Your task to perform on an android device: turn off javascript in the chrome app Image 0: 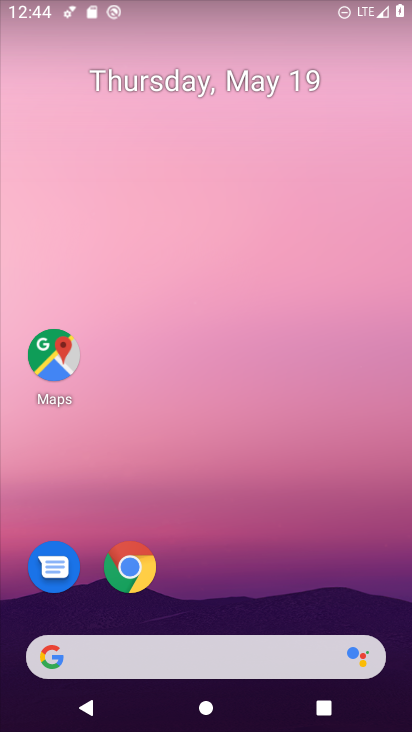
Step 0: click (143, 593)
Your task to perform on an android device: turn off javascript in the chrome app Image 1: 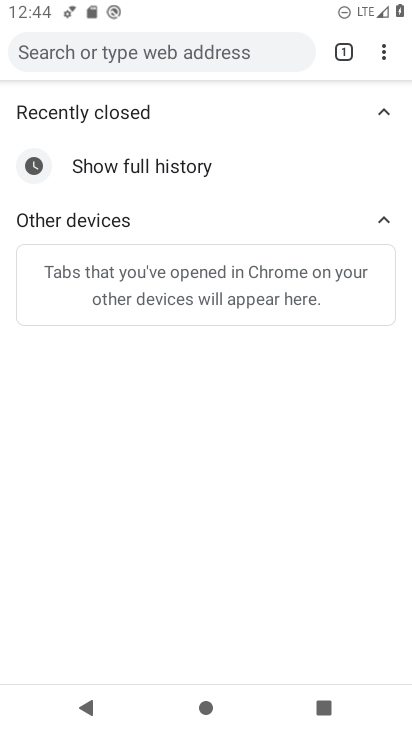
Step 1: click (382, 51)
Your task to perform on an android device: turn off javascript in the chrome app Image 2: 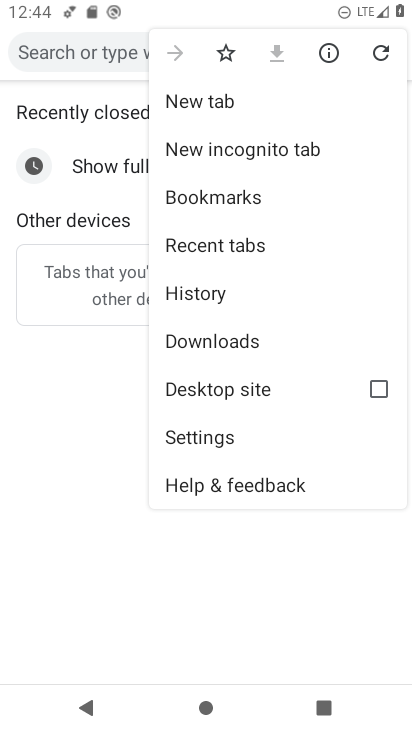
Step 2: click (212, 436)
Your task to perform on an android device: turn off javascript in the chrome app Image 3: 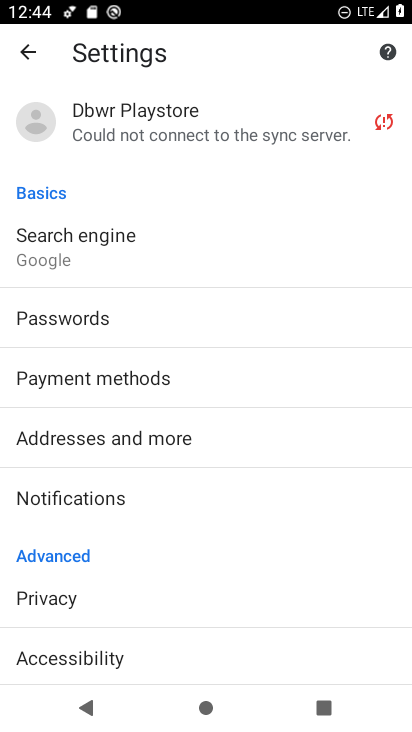
Step 3: drag from (211, 562) to (232, 324)
Your task to perform on an android device: turn off javascript in the chrome app Image 4: 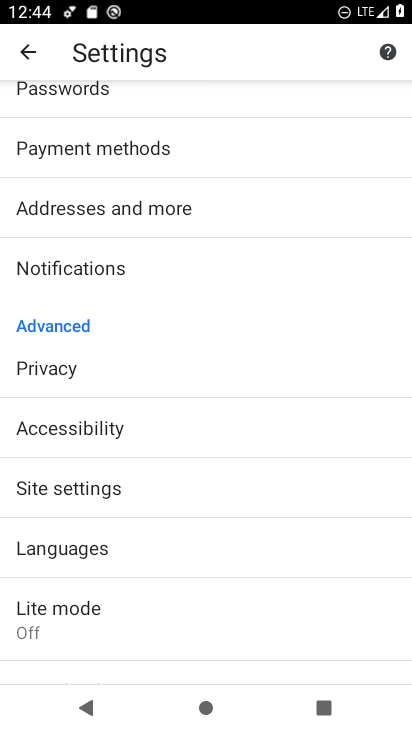
Step 4: click (198, 484)
Your task to perform on an android device: turn off javascript in the chrome app Image 5: 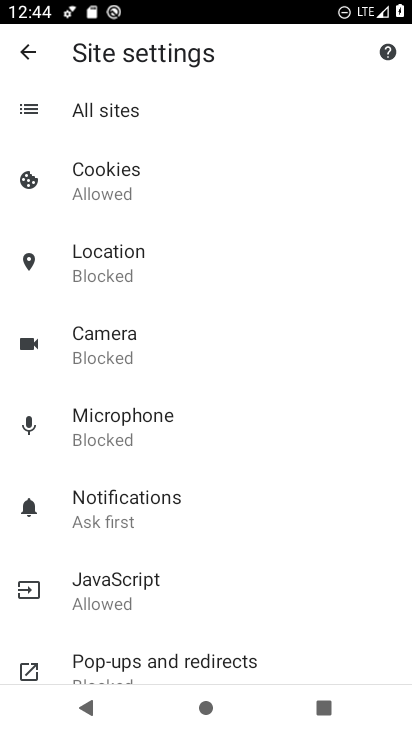
Step 5: click (196, 592)
Your task to perform on an android device: turn off javascript in the chrome app Image 6: 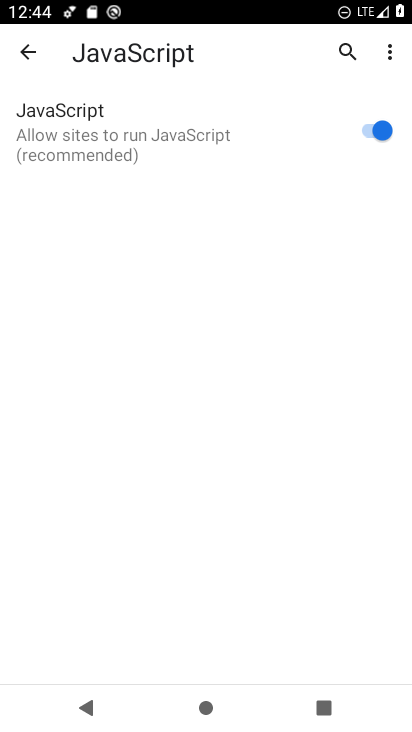
Step 6: click (368, 122)
Your task to perform on an android device: turn off javascript in the chrome app Image 7: 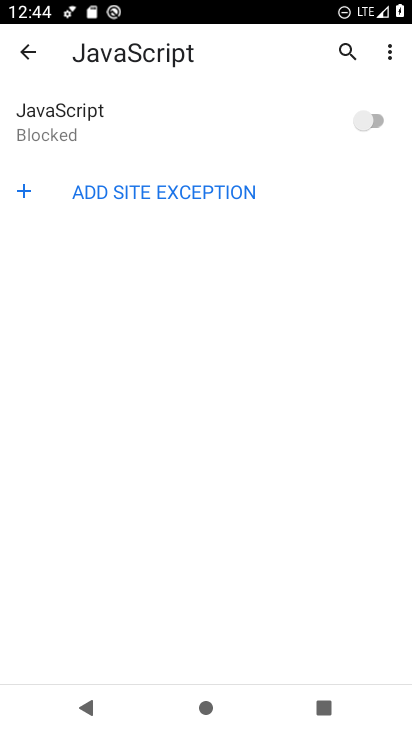
Step 7: task complete